Your task to perform on an android device: turn off priority inbox in the gmail app Image 0: 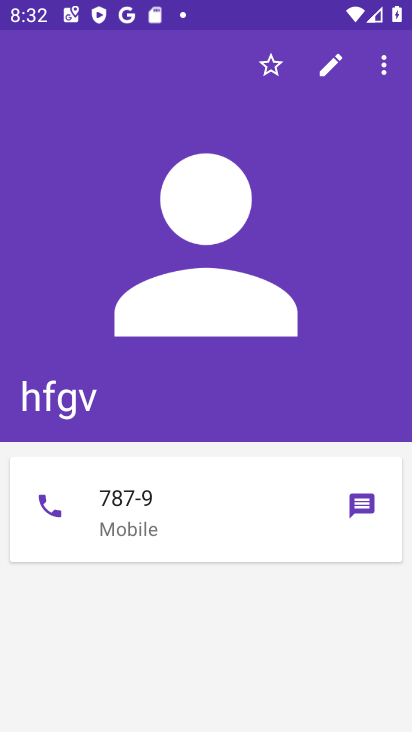
Step 0: press home button
Your task to perform on an android device: turn off priority inbox in the gmail app Image 1: 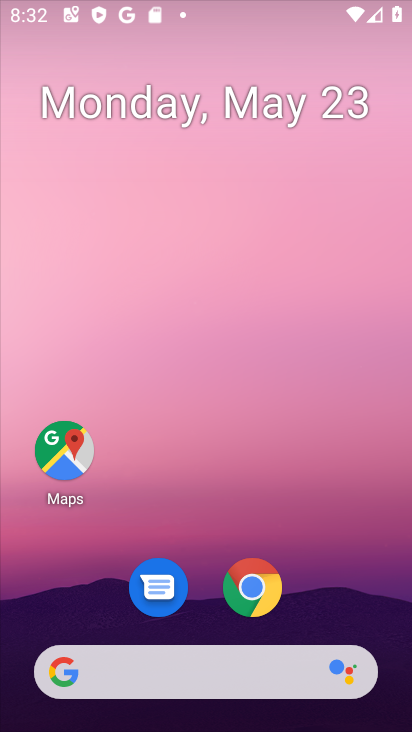
Step 1: drag from (279, 508) to (295, 7)
Your task to perform on an android device: turn off priority inbox in the gmail app Image 2: 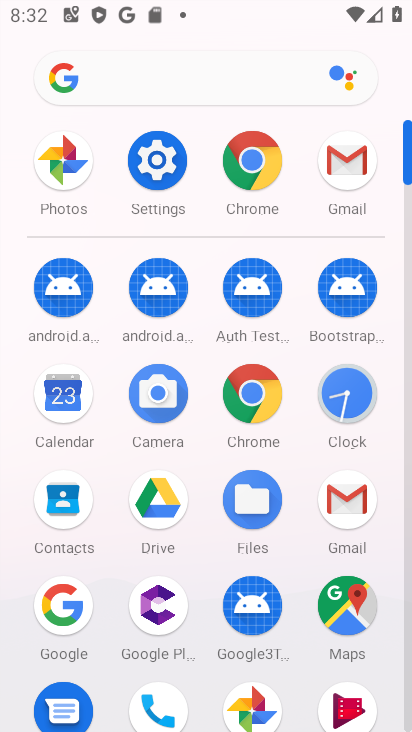
Step 2: click (345, 162)
Your task to perform on an android device: turn off priority inbox in the gmail app Image 3: 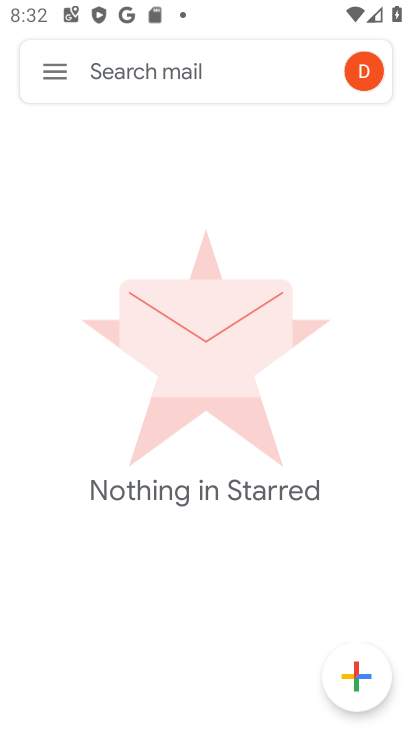
Step 3: click (49, 62)
Your task to perform on an android device: turn off priority inbox in the gmail app Image 4: 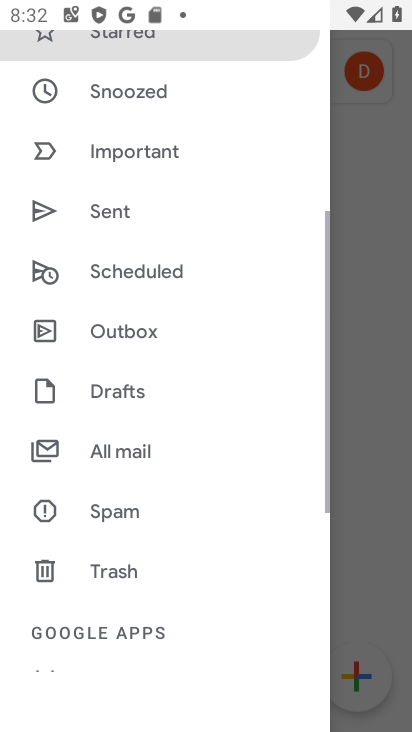
Step 4: drag from (148, 600) to (251, 13)
Your task to perform on an android device: turn off priority inbox in the gmail app Image 5: 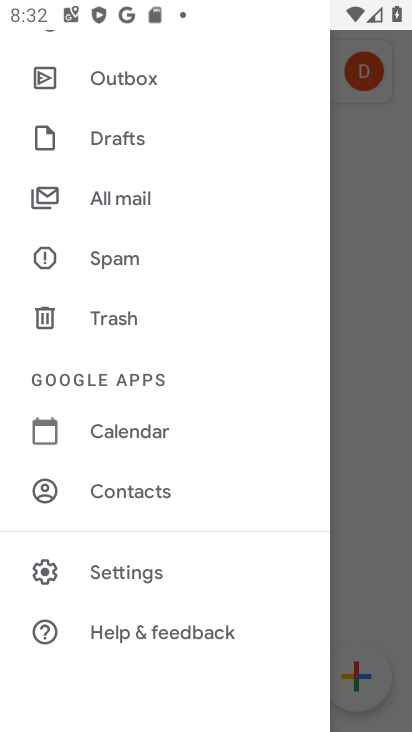
Step 5: click (104, 568)
Your task to perform on an android device: turn off priority inbox in the gmail app Image 6: 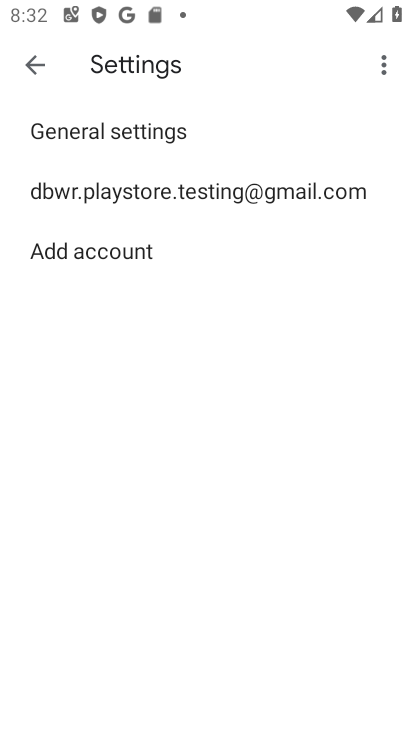
Step 6: click (121, 195)
Your task to perform on an android device: turn off priority inbox in the gmail app Image 7: 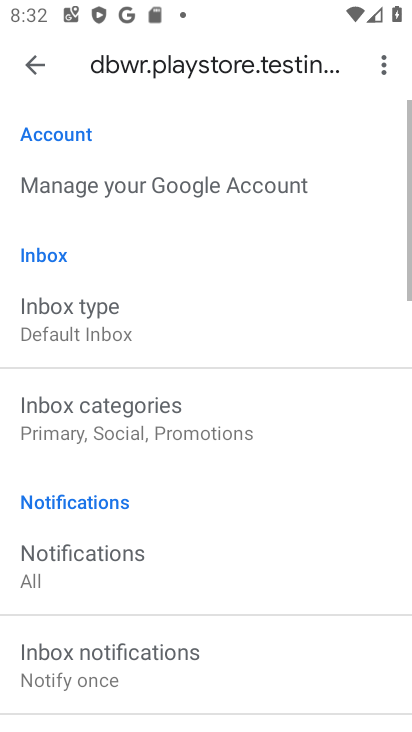
Step 7: click (73, 324)
Your task to perform on an android device: turn off priority inbox in the gmail app Image 8: 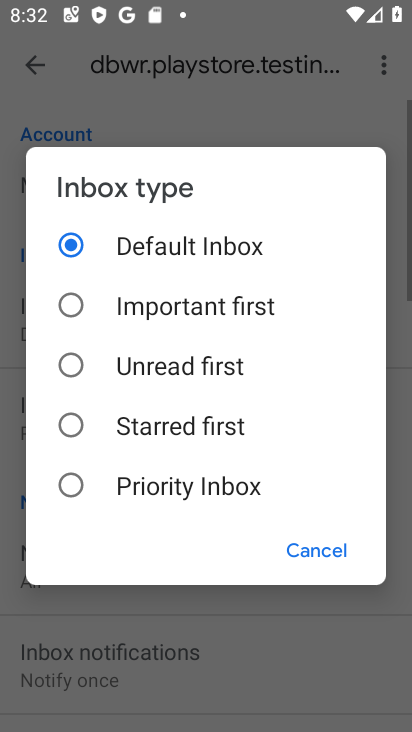
Step 8: click (65, 230)
Your task to perform on an android device: turn off priority inbox in the gmail app Image 9: 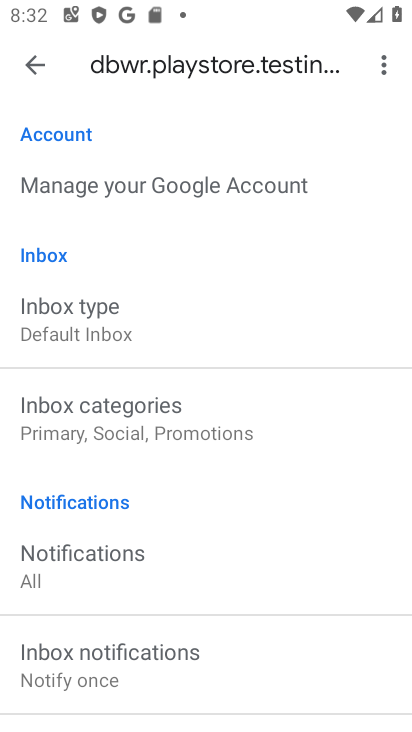
Step 9: task complete